Your task to perform on an android device: turn on airplane mode Image 0: 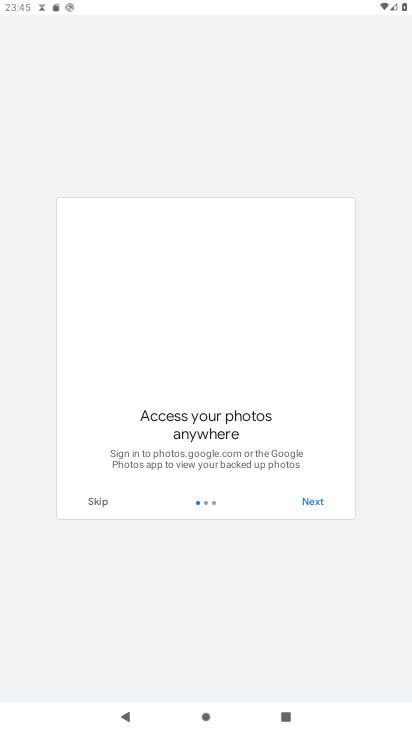
Step 0: press home button
Your task to perform on an android device: turn on airplane mode Image 1: 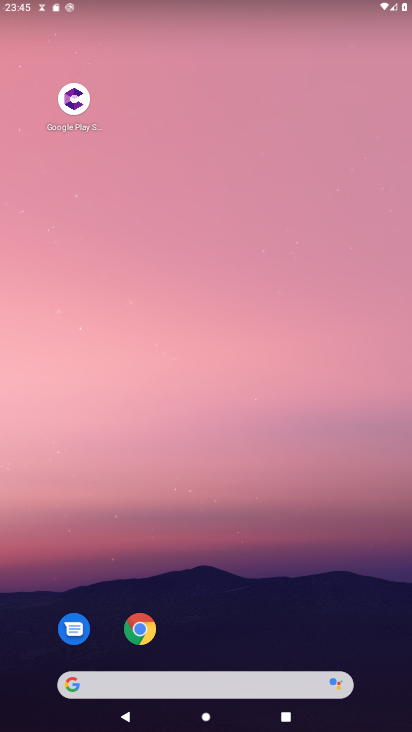
Step 1: drag from (300, 639) to (280, 141)
Your task to perform on an android device: turn on airplane mode Image 2: 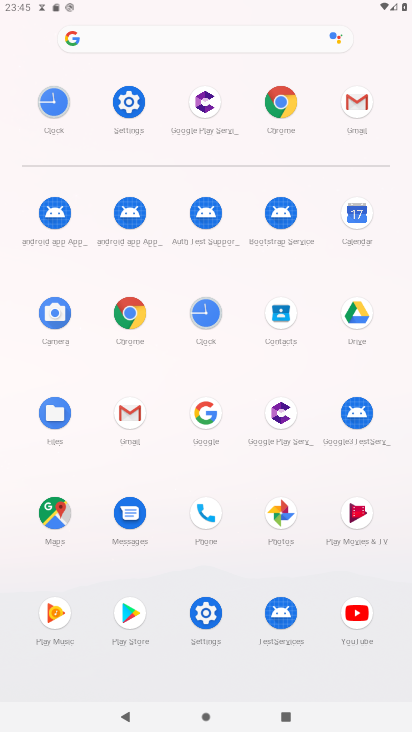
Step 2: click (132, 96)
Your task to perform on an android device: turn on airplane mode Image 3: 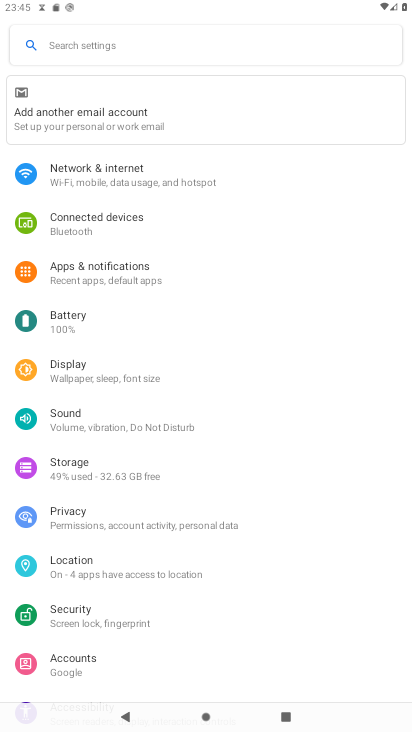
Step 3: click (78, 186)
Your task to perform on an android device: turn on airplane mode Image 4: 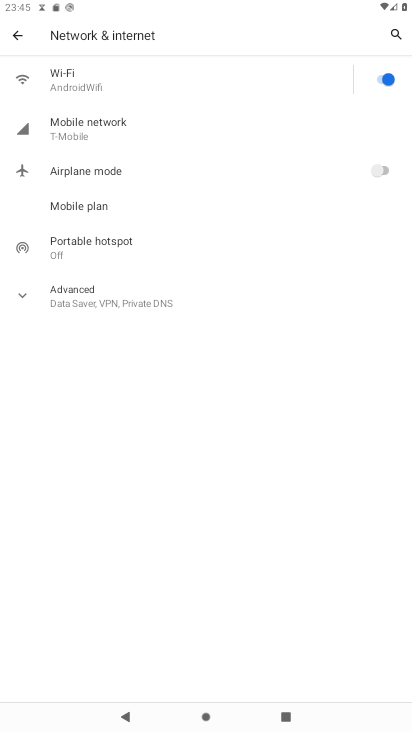
Step 4: click (114, 162)
Your task to perform on an android device: turn on airplane mode Image 5: 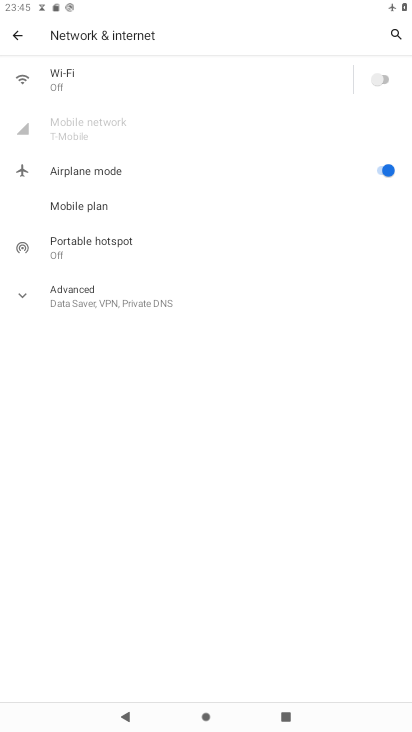
Step 5: task complete